Your task to perform on an android device: Open Google Maps Image 0: 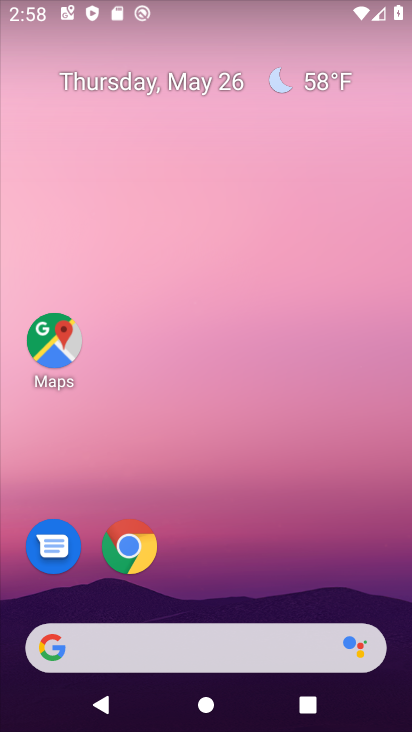
Step 0: press home button
Your task to perform on an android device: Open Google Maps Image 1: 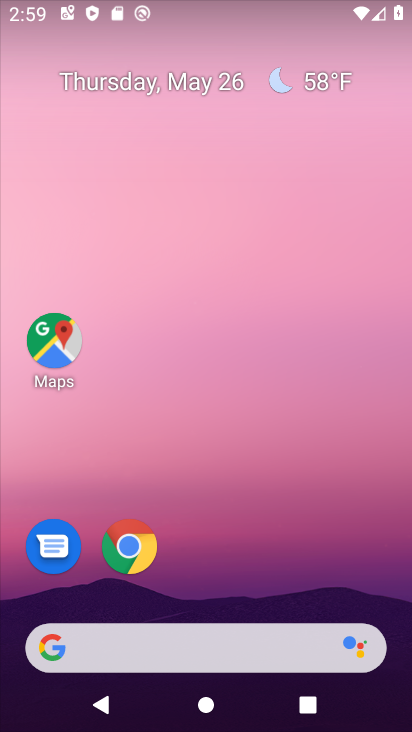
Step 1: click (47, 343)
Your task to perform on an android device: Open Google Maps Image 2: 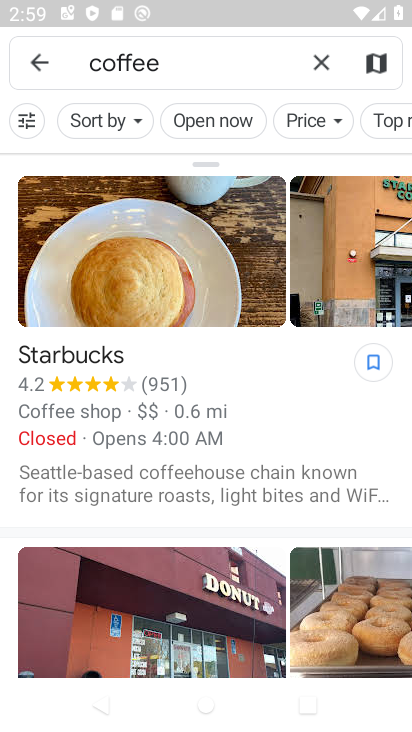
Step 2: task complete